Your task to perform on an android device: Open Android settings Image 0: 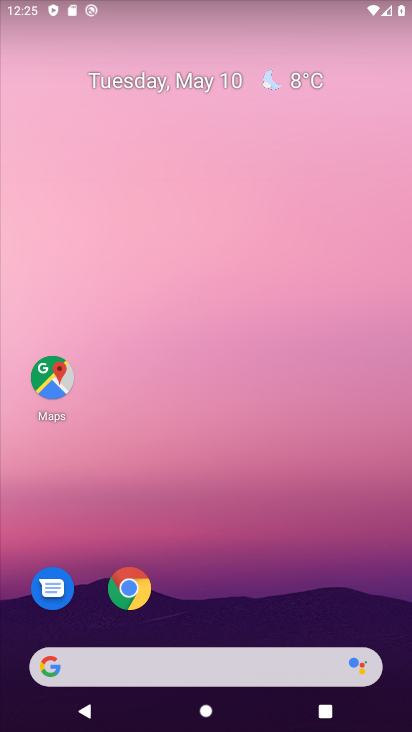
Step 0: drag from (213, 618) to (164, 18)
Your task to perform on an android device: Open Android settings Image 1: 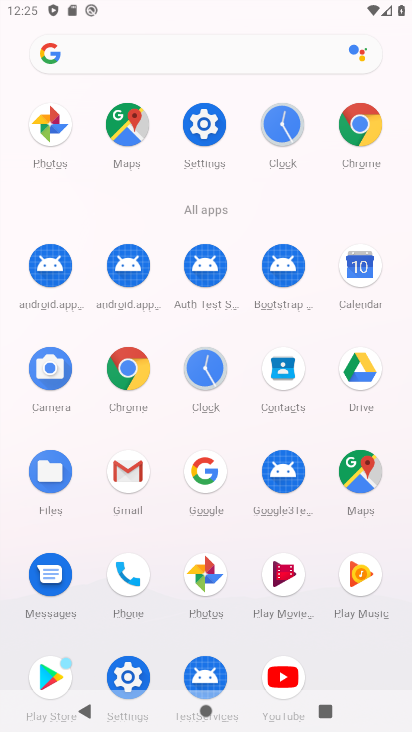
Step 1: drag from (219, 640) to (136, 48)
Your task to perform on an android device: Open Android settings Image 2: 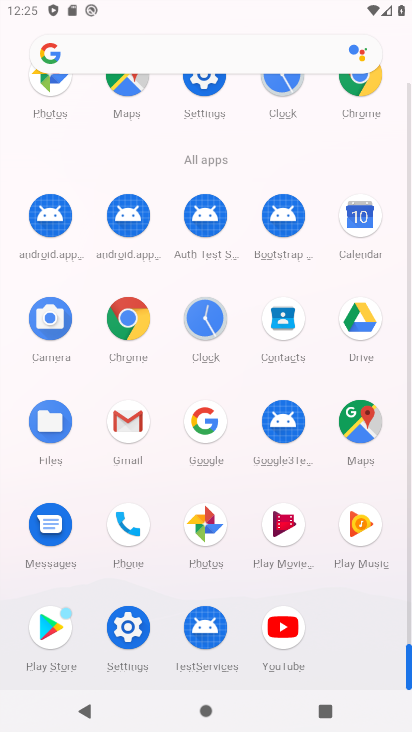
Step 2: click (127, 610)
Your task to perform on an android device: Open Android settings Image 3: 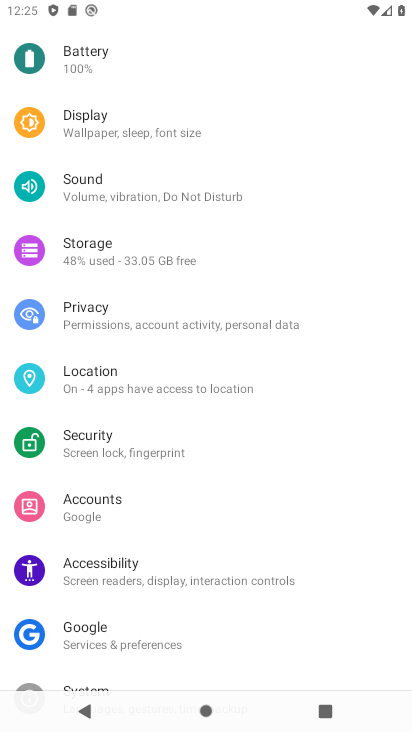
Step 3: drag from (190, 626) to (121, 145)
Your task to perform on an android device: Open Android settings Image 4: 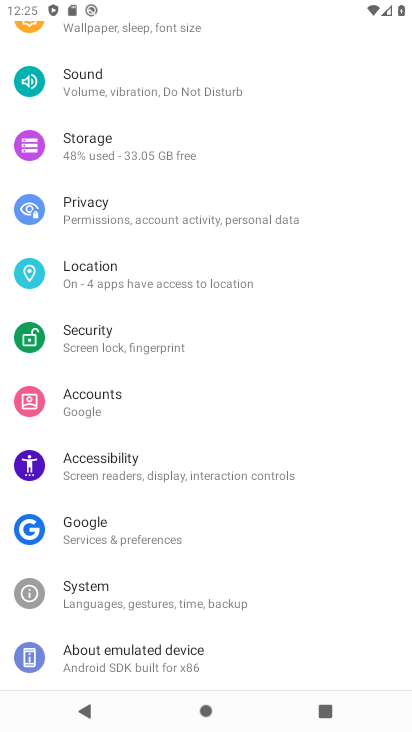
Step 4: click (99, 641)
Your task to perform on an android device: Open Android settings Image 5: 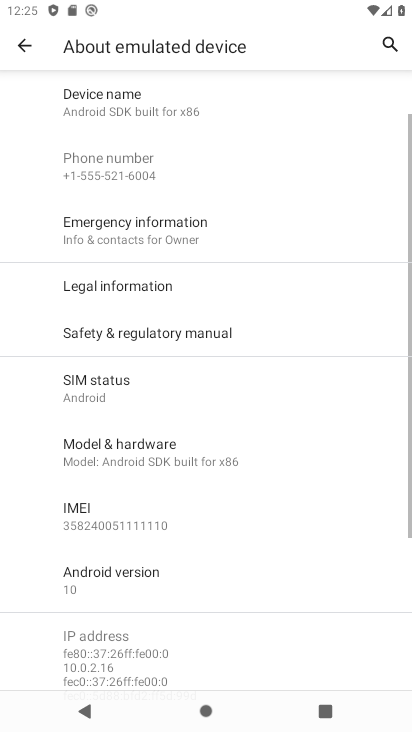
Step 5: click (120, 573)
Your task to perform on an android device: Open Android settings Image 6: 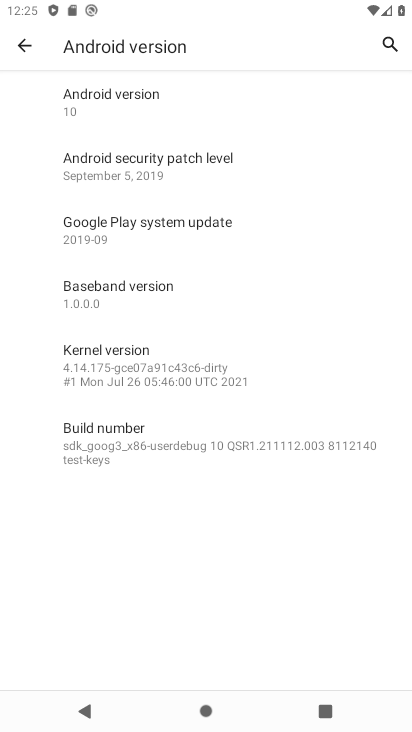
Step 6: click (144, 93)
Your task to perform on an android device: Open Android settings Image 7: 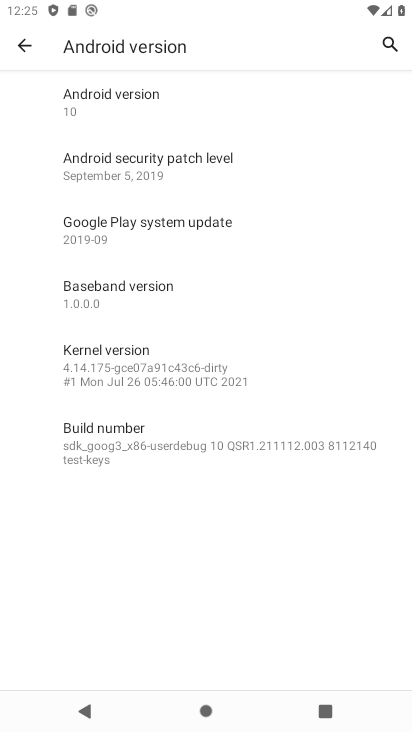
Step 7: task complete